Your task to perform on an android device: Show me productivity apps on the Play Store Image 0: 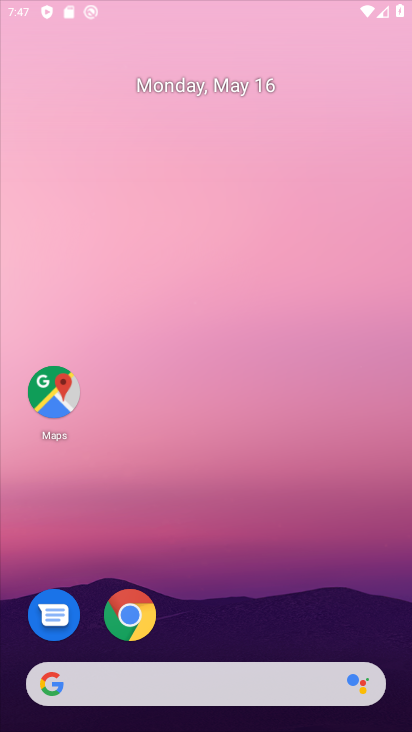
Step 0: click (334, 326)
Your task to perform on an android device: Show me productivity apps on the Play Store Image 1: 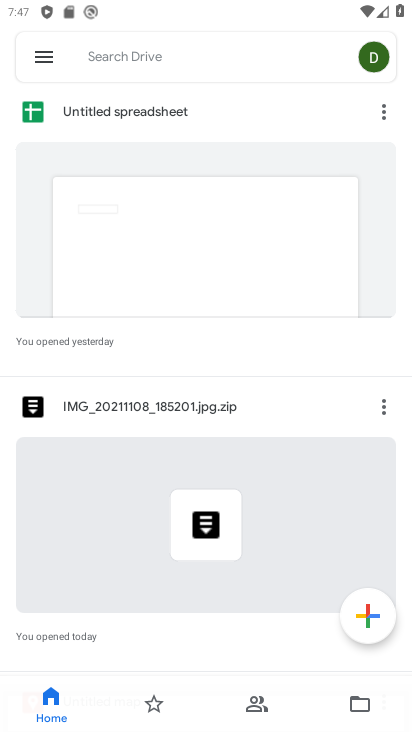
Step 1: press home button
Your task to perform on an android device: Show me productivity apps on the Play Store Image 2: 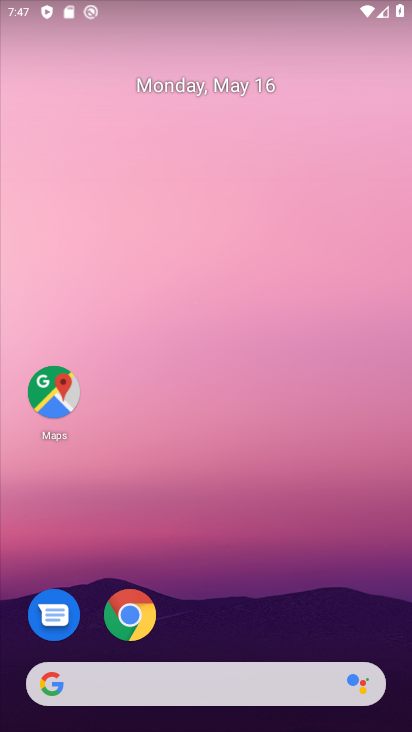
Step 2: drag from (255, 620) to (253, 74)
Your task to perform on an android device: Show me productivity apps on the Play Store Image 3: 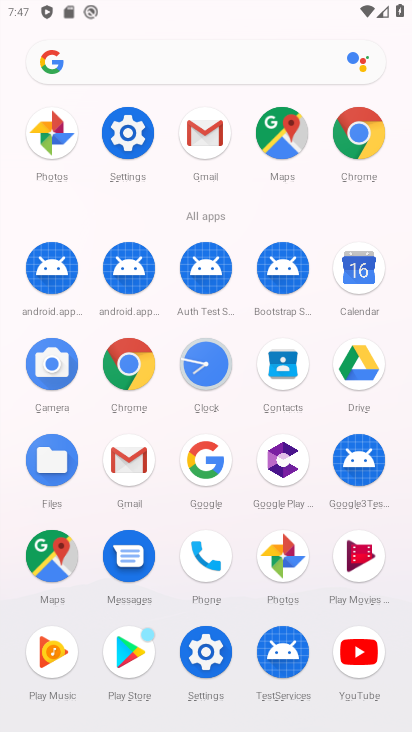
Step 3: click (120, 657)
Your task to perform on an android device: Show me productivity apps on the Play Store Image 4: 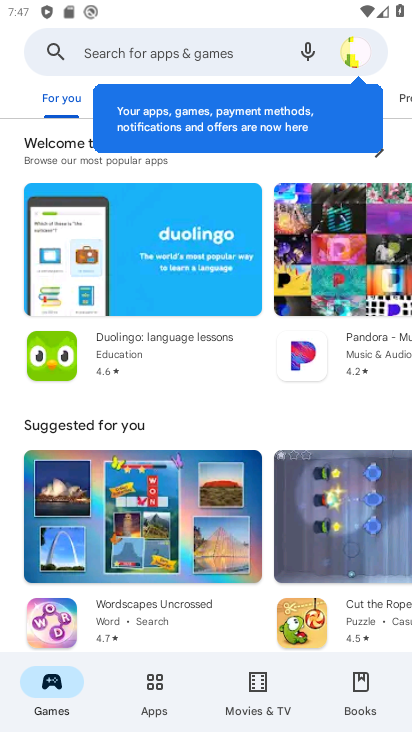
Step 4: click (113, 652)
Your task to perform on an android device: Show me productivity apps on the Play Store Image 5: 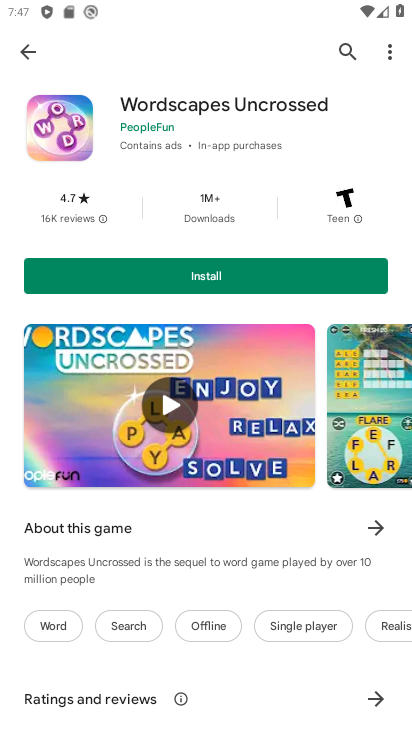
Step 5: click (16, 51)
Your task to perform on an android device: Show me productivity apps on the Play Store Image 6: 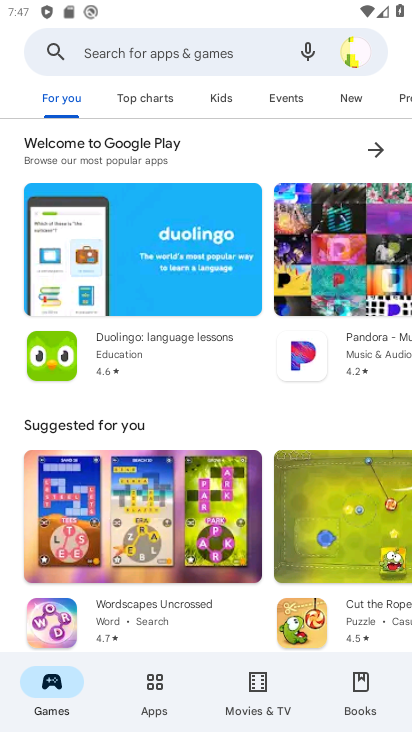
Step 6: click (132, 44)
Your task to perform on an android device: Show me productivity apps on the Play Store Image 7: 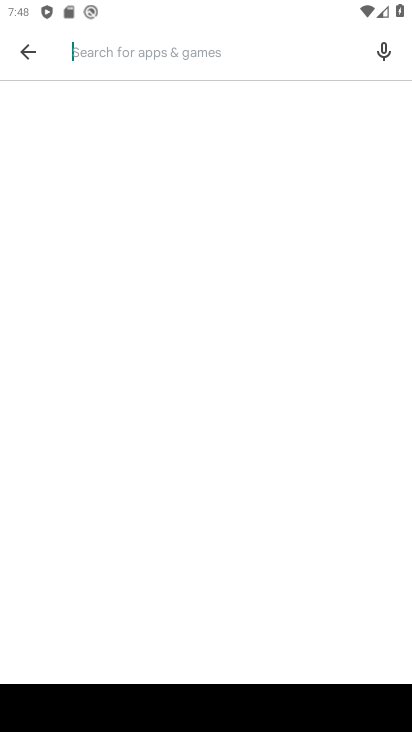
Step 7: type "producrtivity aaps"
Your task to perform on an android device: Show me productivity apps on the Play Store Image 8: 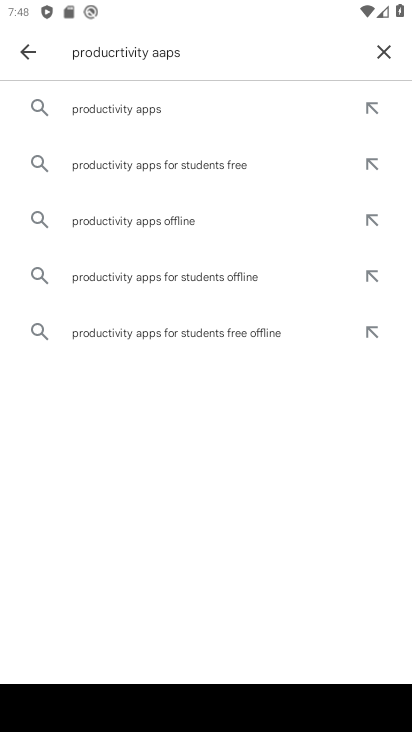
Step 8: click (162, 97)
Your task to perform on an android device: Show me productivity apps on the Play Store Image 9: 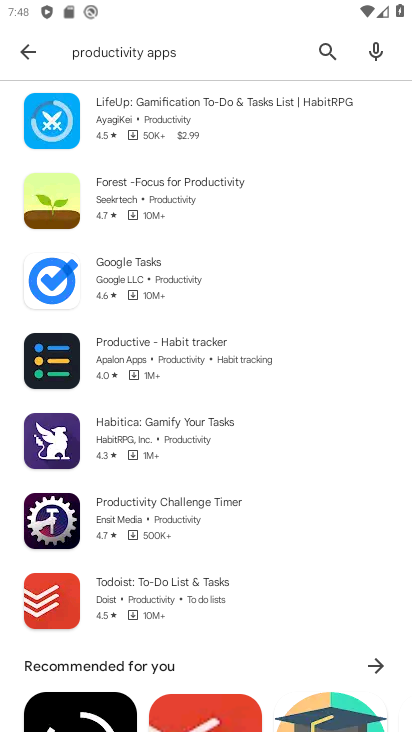
Step 9: task complete